Your task to perform on an android device: Open Google Chrome Image 0: 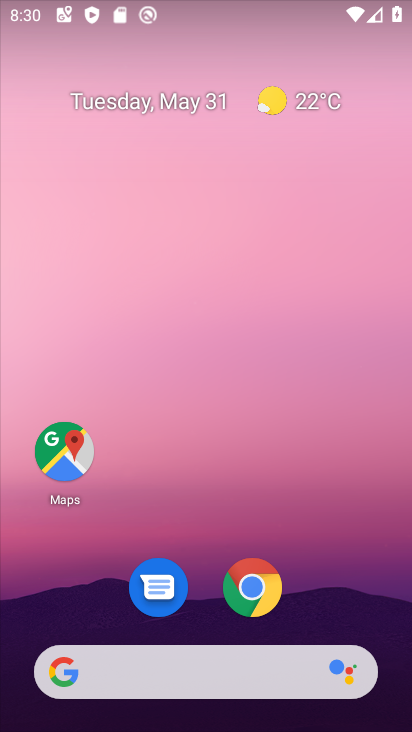
Step 0: click (251, 589)
Your task to perform on an android device: Open Google Chrome Image 1: 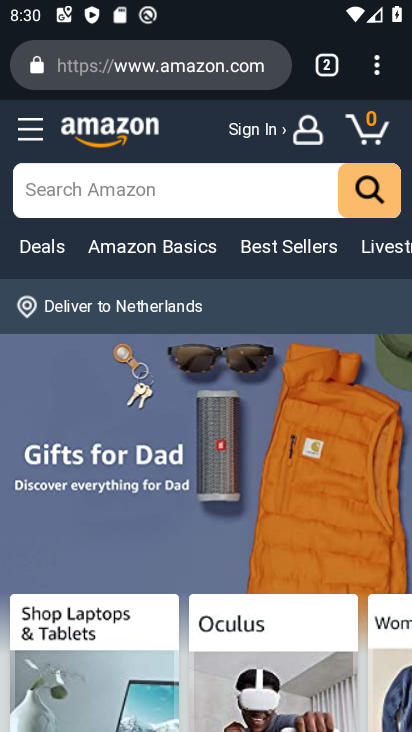
Step 1: task complete